Your task to perform on an android device: open chrome privacy settings Image 0: 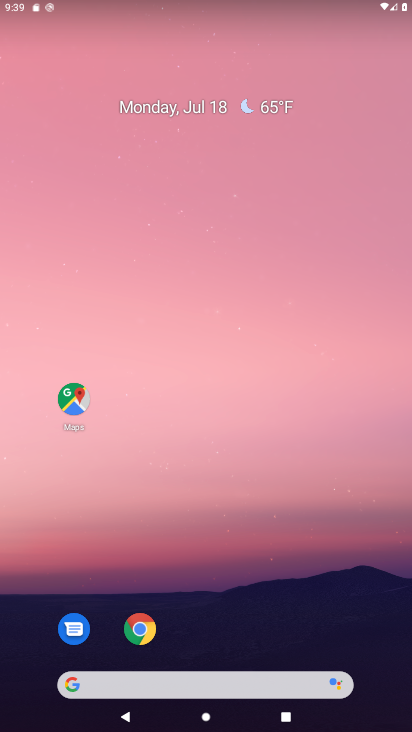
Step 0: click (143, 634)
Your task to perform on an android device: open chrome privacy settings Image 1: 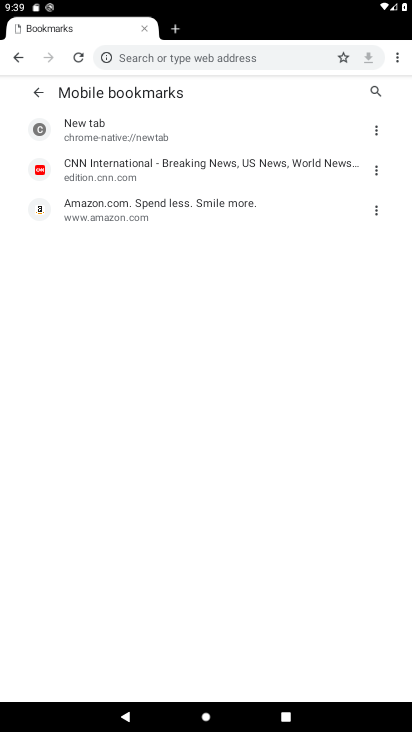
Step 1: click (398, 48)
Your task to perform on an android device: open chrome privacy settings Image 2: 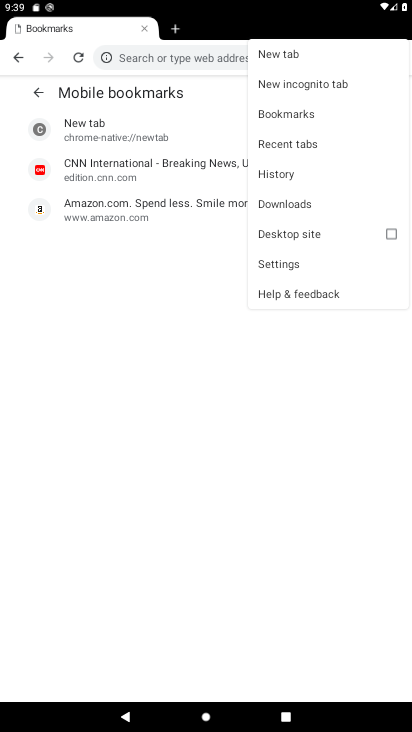
Step 2: click (275, 258)
Your task to perform on an android device: open chrome privacy settings Image 3: 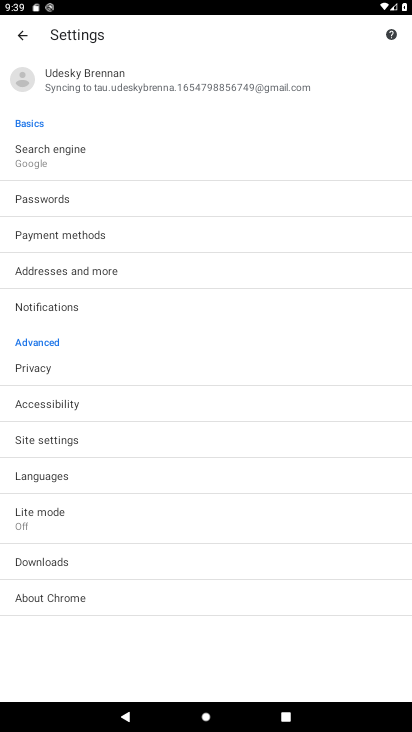
Step 3: click (31, 364)
Your task to perform on an android device: open chrome privacy settings Image 4: 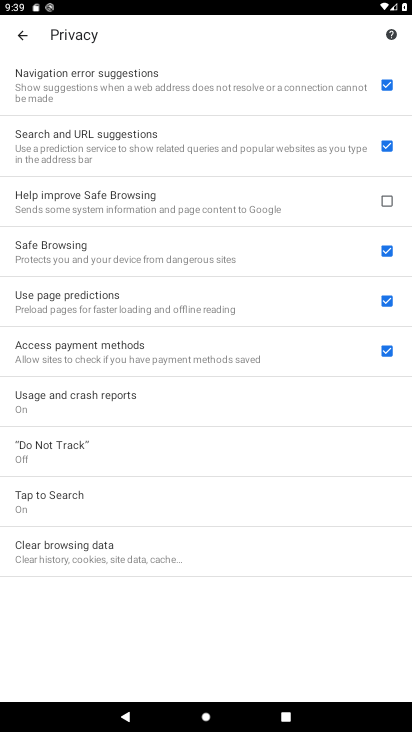
Step 4: task complete